Your task to perform on an android device: find which apps use the phone's location Image 0: 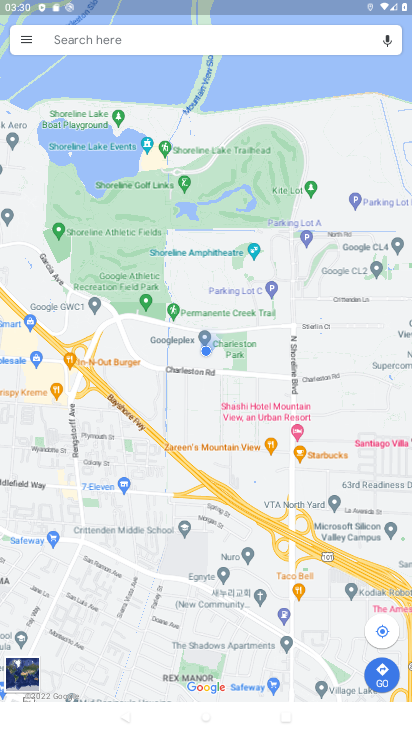
Step 0: press home button
Your task to perform on an android device: find which apps use the phone's location Image 1: 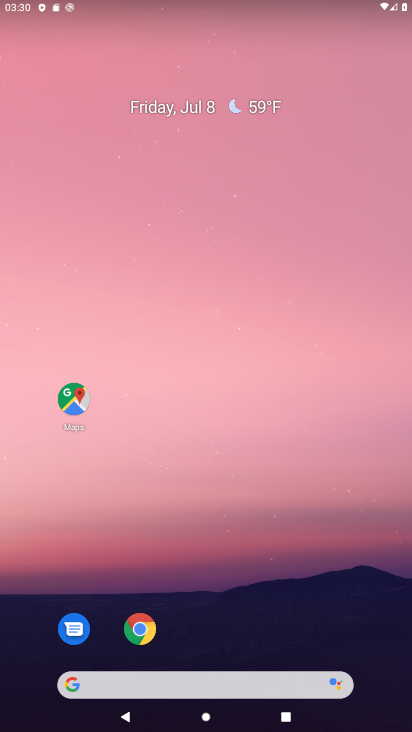
Step 1: drag from (218, 648) to (239, 15)
Your task to perform on an android device: find which apps use the phone's location Image 2: 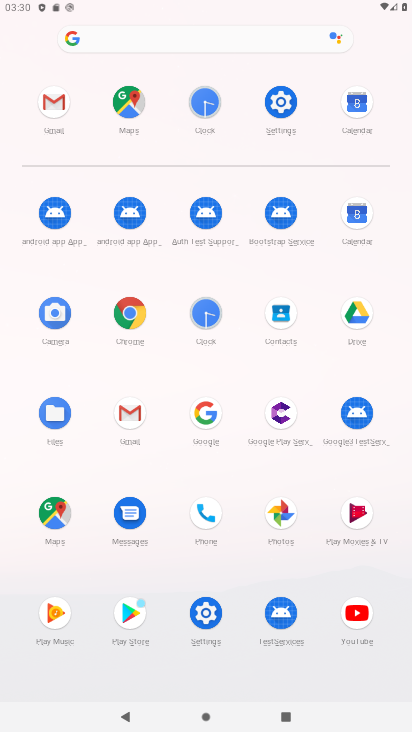
Step 2: click (203, 608)
Your task to perform on an android device: find which apps use the phone's location Image 3: 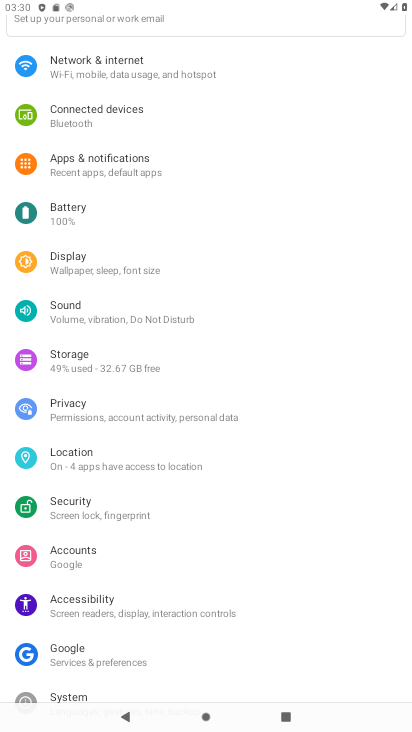
Step 3: click (109, 448)
Your task to perform on an android device: find which apps use the phone's location Image 4: 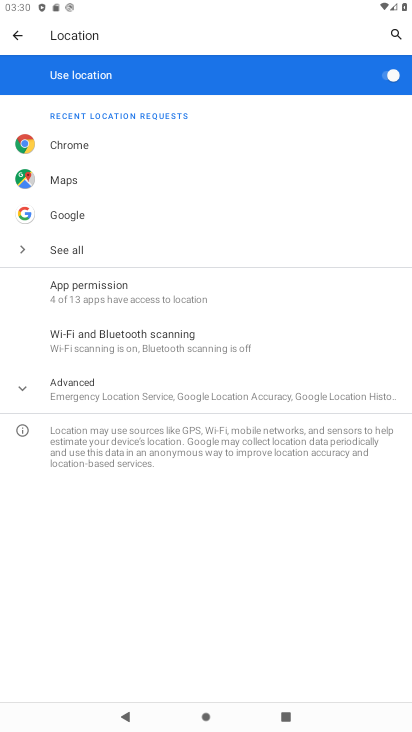
Step 4: click (109, 287)
Your task to perform on an android device: find which apps use the phone's location Image 5: 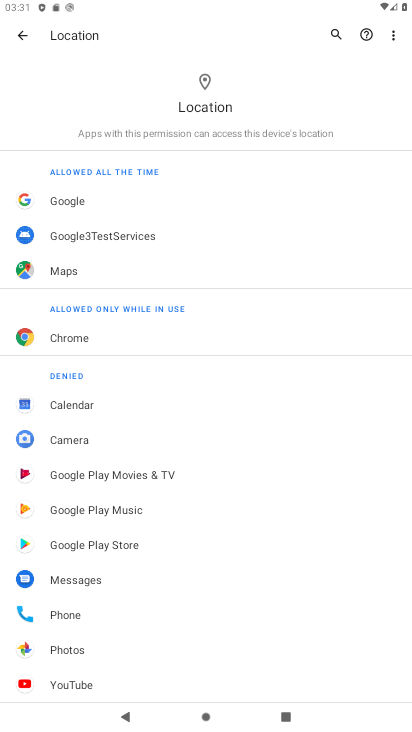
Step 5: task complete